Your task to perform on an android device: add a label to a message in the gmail app Image 0: 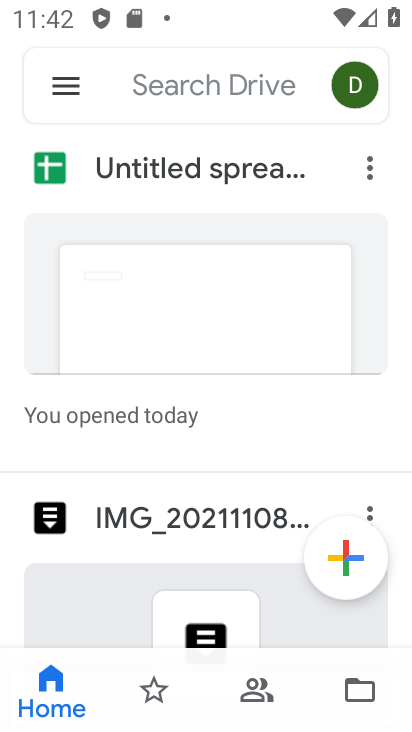
Step 0: press home button
Your task to perform on an android device: add a label to a message in the gmail app Image 1: 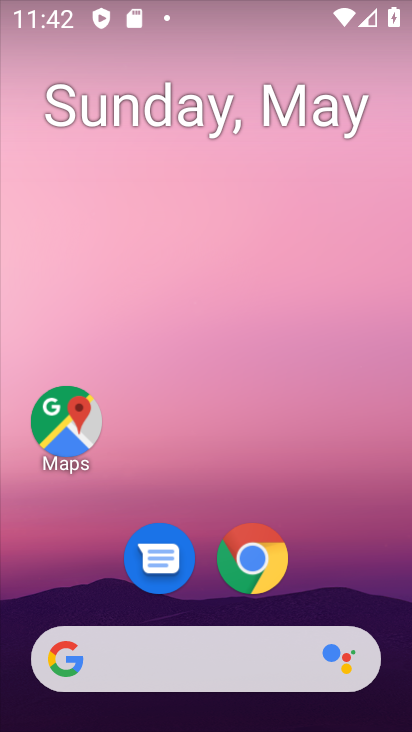
Step 1: drag from (378, 597) to (380, 96)
Your task to perform on an android device: add a label to a message in the gmail app Image 2: 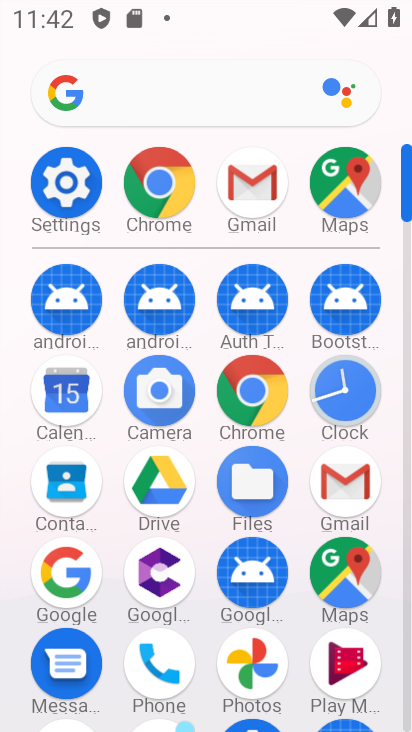
Step 2: click (342, 499)
Your task to perform on an android device: add a label to a message in the gmail app Image 3: 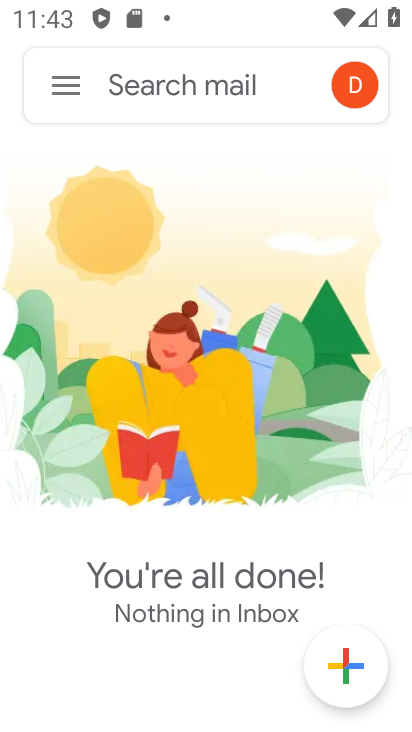
Step 3: task complete